Your task to perform on an android device: Go to privacy settings Image 0: 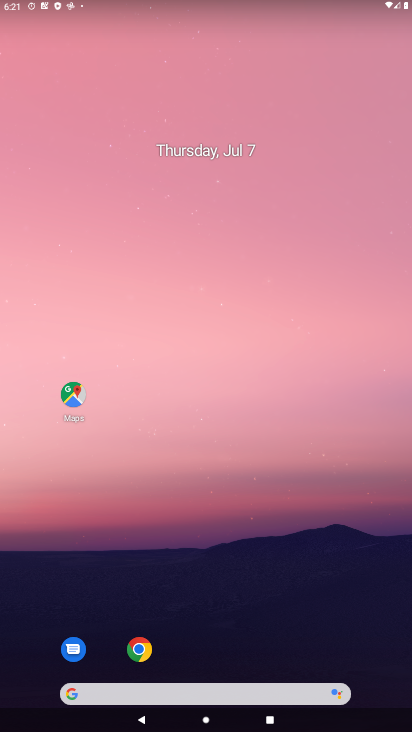
Step 0: drag from (389, 625) to (197, 4)
Your task to perform on an android device: Go to privacy settings Image 1: 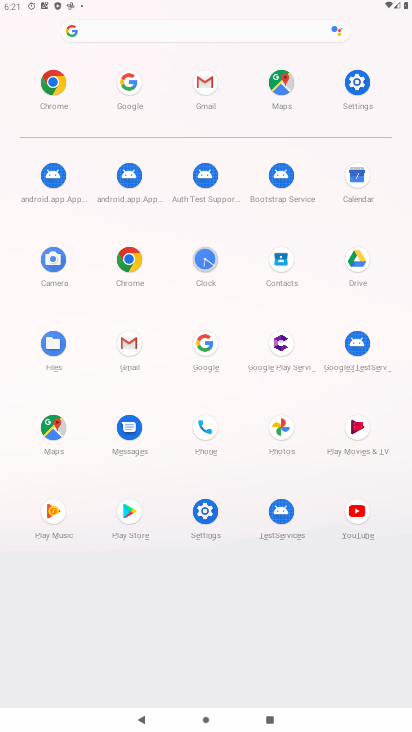
Step 1: click (208, 514)
Your task to perform on an android device: Go to privacy settings Image 2: 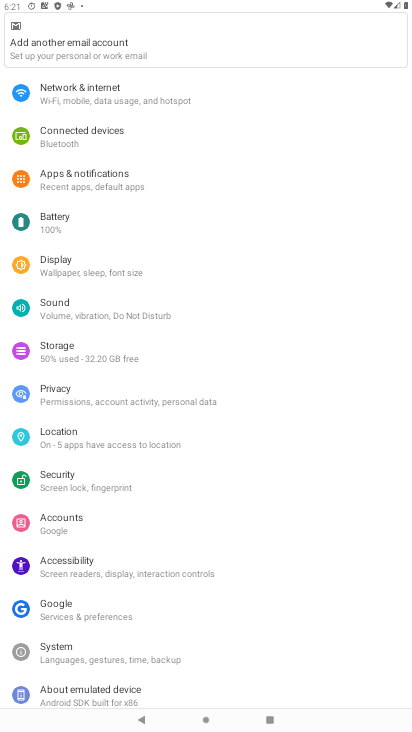
Step 2: click (95, 398)
Your task to perform on an android device: Go to privacy settings Image 3: 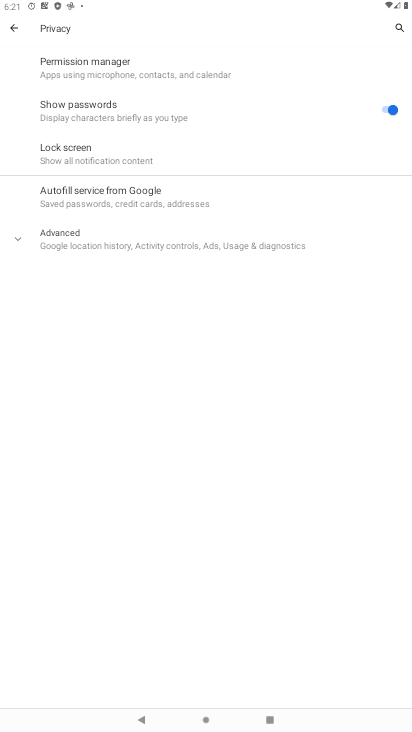
Step 3: task complete